Your task to perform on an android device: turn off picture-in-picture Image 0: 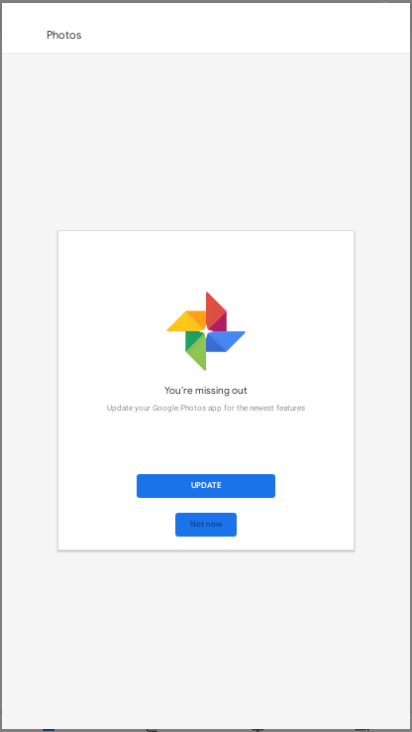
Step 0: press home button
Your task to perform on an android device: turn off picture-in-picture Image 1: 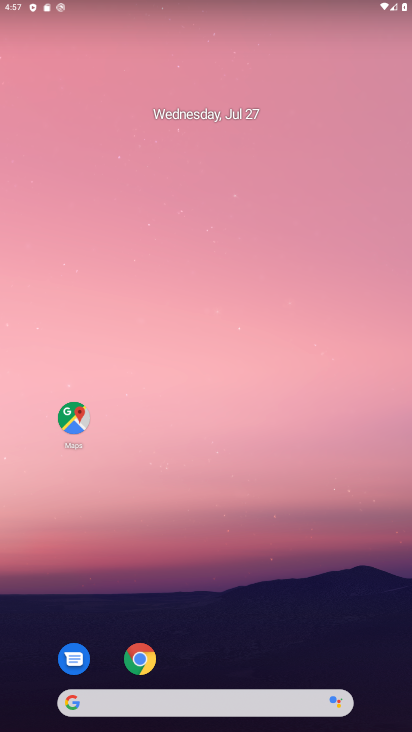
Step 1: click (147, 656)
Your task to perform on an android device: turn off picture-in-picture Image 2: 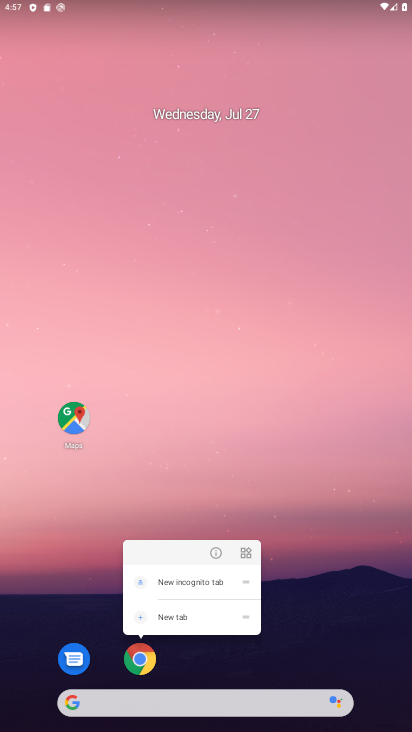
Step 2: click (212, 546)
Your task to perform on an android device: turn off picture-in-picture Image 3: 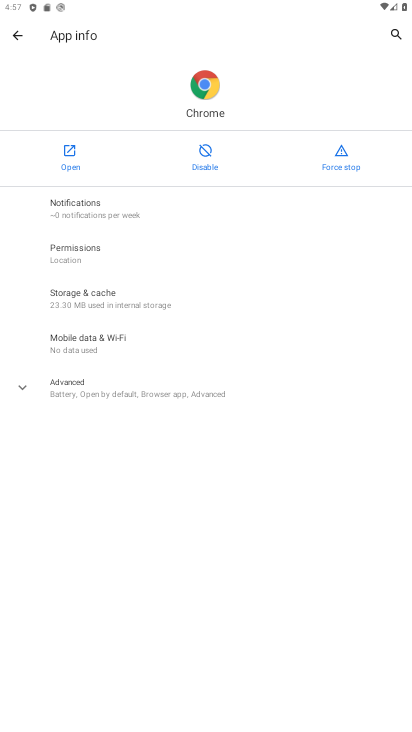
Step 3: click (80, 393)
Your task to perform on an android device: turn off picture-in-picture Image 4: 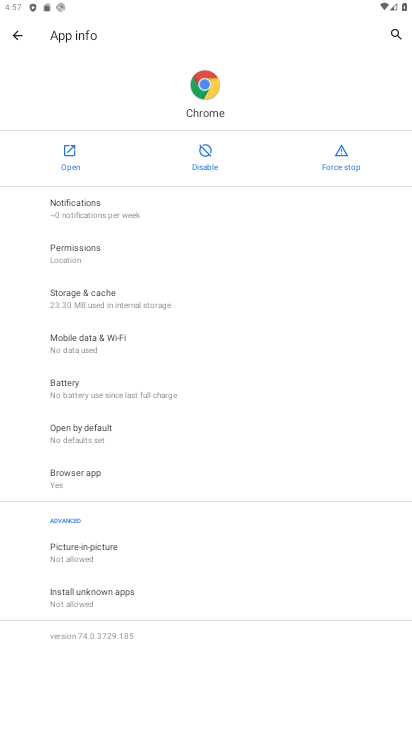
Step 4: click (116, 540)
Your task to perform on an android device: turn off picture-in-picture Image 5: 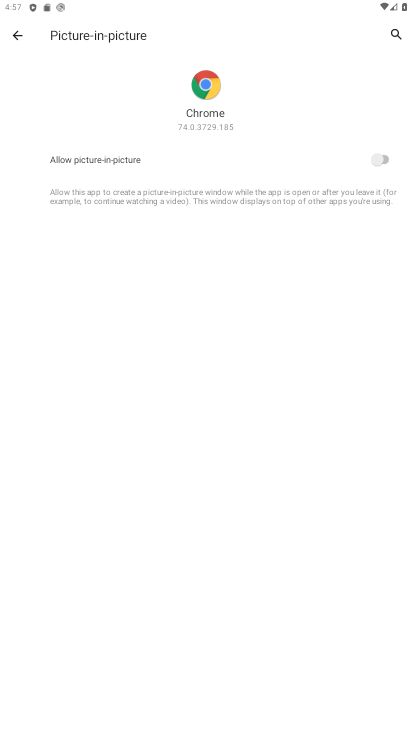
Step 5: task complete